Your task to perform on an android device: uninstall "Google Keep" Image 0: 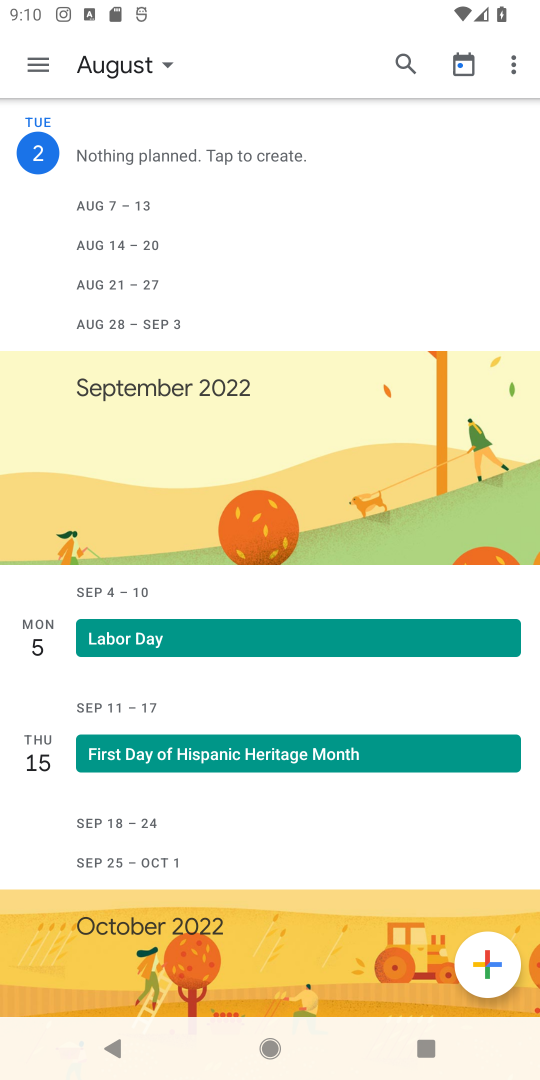
Step 0: press home button
Your task to perform on an android device: uninstall "Google Keep" Image 1: 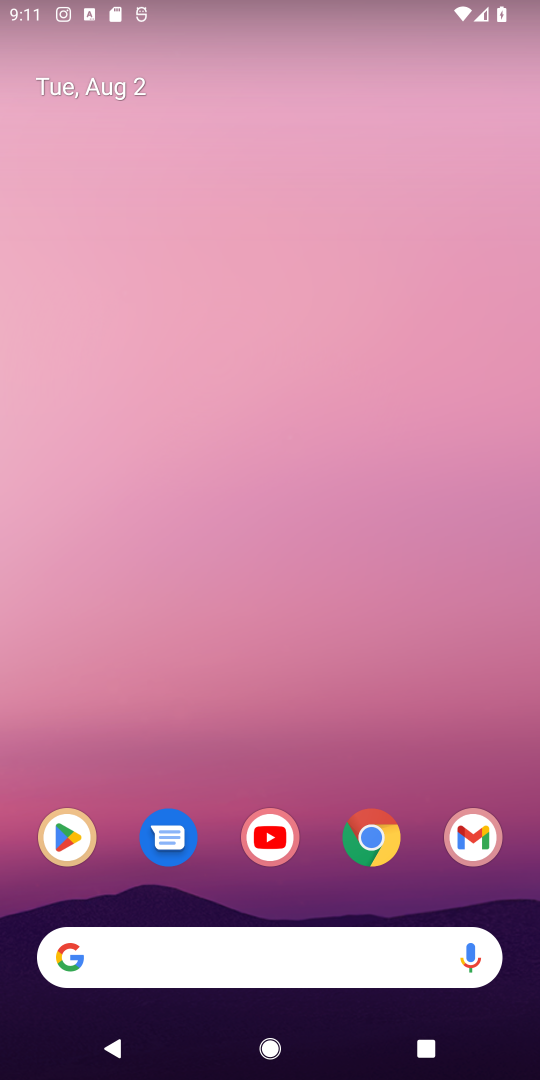
Step 1: click (73, 844)
Your task to perform on an android device: uninstall "Google Keep" Image 2: 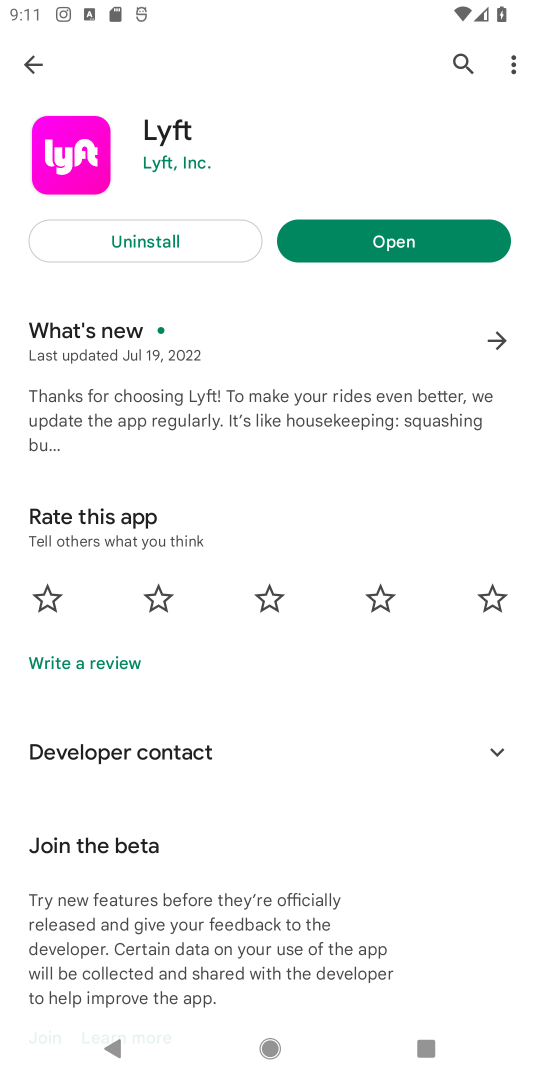
Step 2: click (467, 57)
Your task to perform on an android device: uninstall "Google Keep" Image 3: 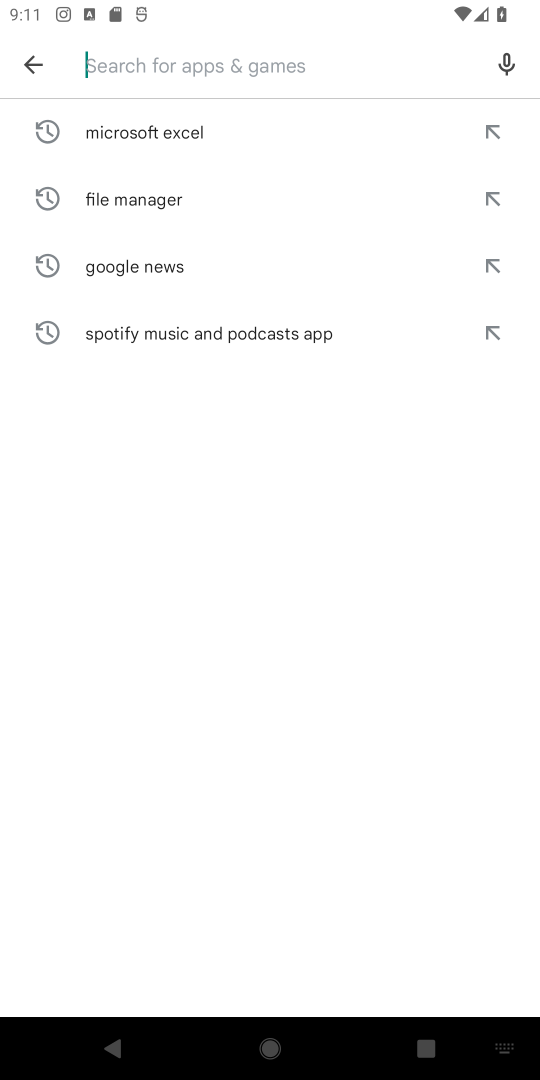
Step 3: type "Google Keep"
Your task to perform on an android device: uninstall "Google Keep" Image 4: 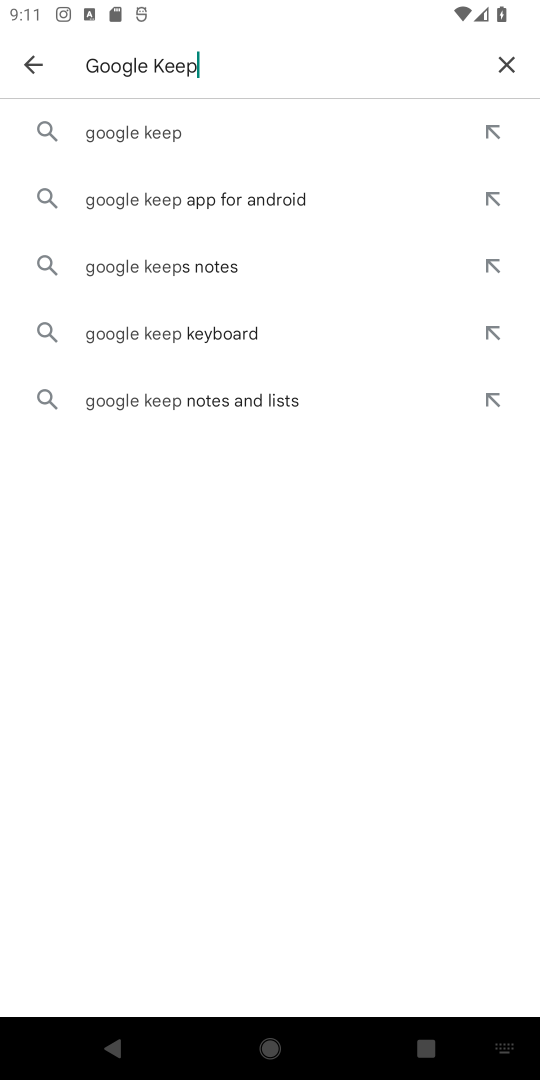
Step 4: click (148, 129)
Your task to perform on an android device: uninstall "Google Keep" Image 5: 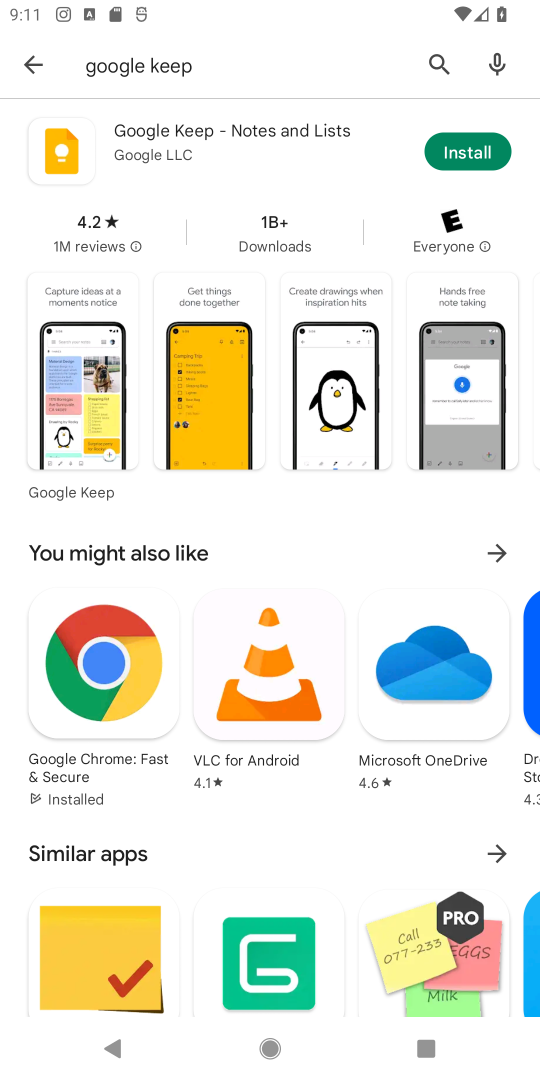
Step 5: task complete